Your task to perform on an android device: Set the phone to "Do not disturb". Image 0: 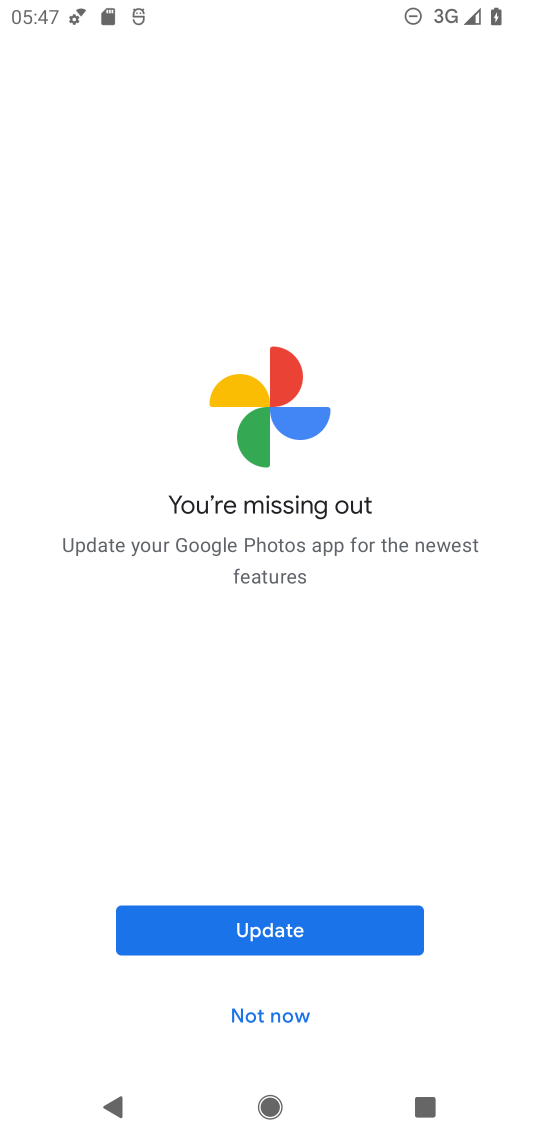
Step 0: press home button
Your task to perform on an android device: Set the phone to "Do not disturb". Image 1: 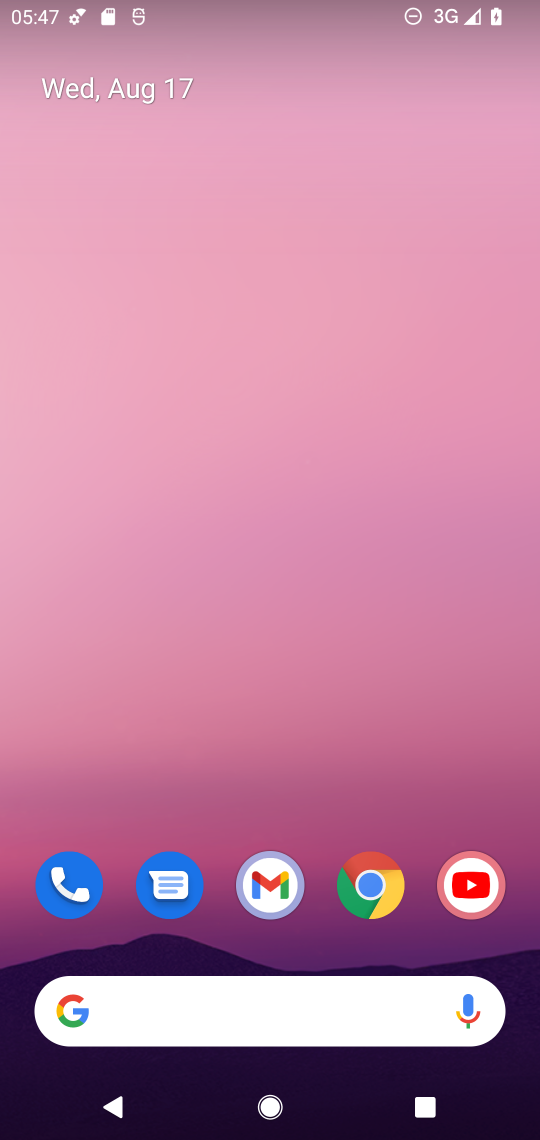
Step 1: task complete